Your task to perform on an android device: Open the web browser Image 0: 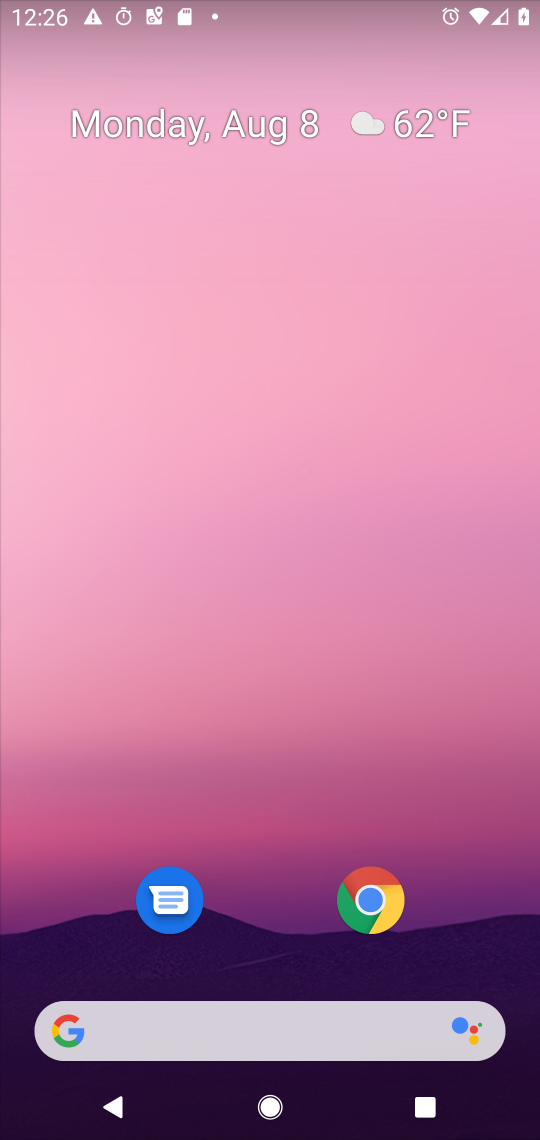
Step 0: drag from (272, 962) to (324, 128)
Your task to perform on an android device: Open the web browser Image 1: 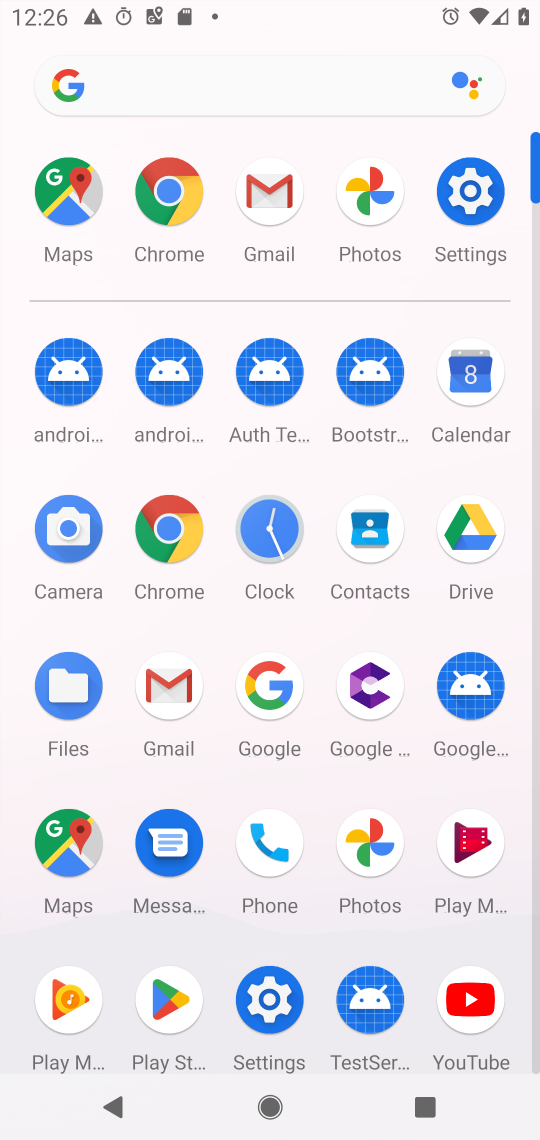
Step 1: click (176, 183)
Your task to perform on an android device: Open the web browser Image 2: 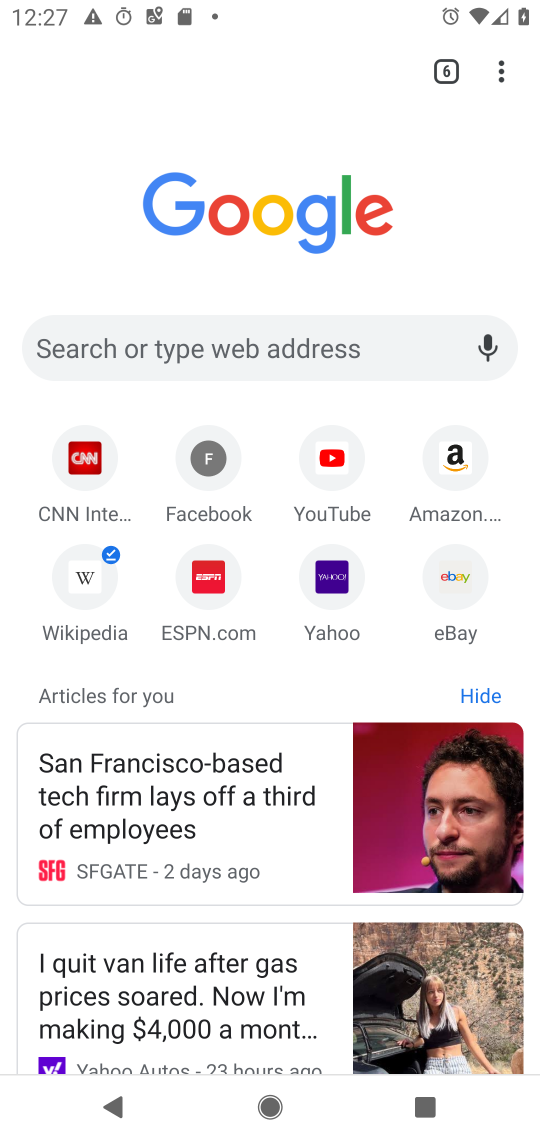
Step 2: task complete